Your task to perform on an android device: When is my next meeting? Image 0: 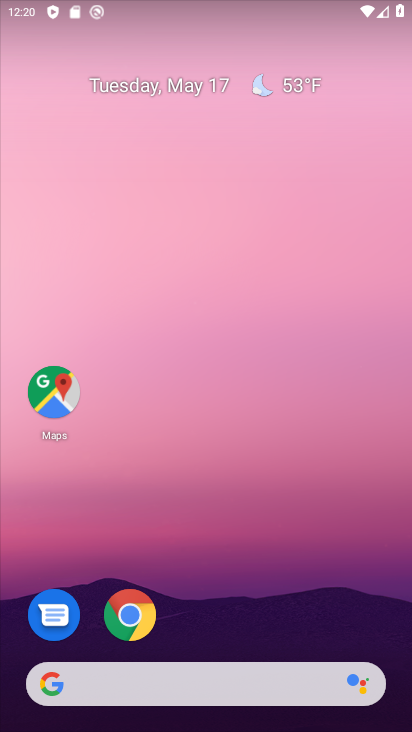
Step 0: drag from (248, 628) to (251, 51)
Your task to perform on an android device: When is my next meeting? Image 1: 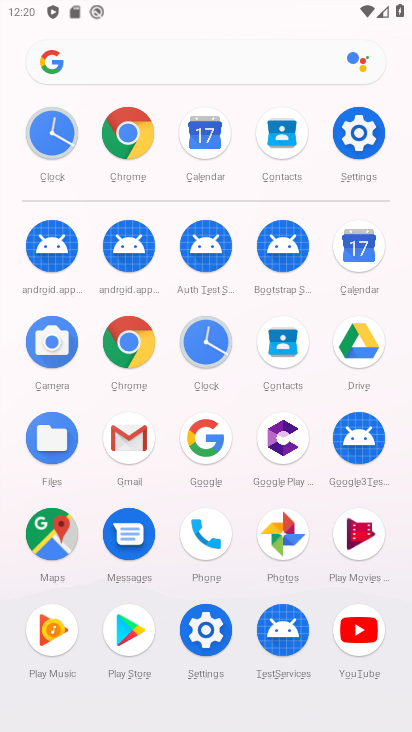
Step 1: click (363, 269)
Your task to perform on an android device: When is my next meeting? Image 2: 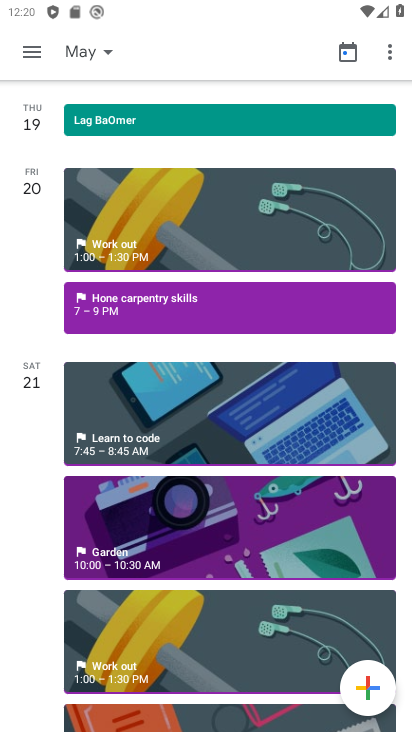
Step 2: click (31, 63)
Your task to perform on an android device: When is my next meeting? Image 3: 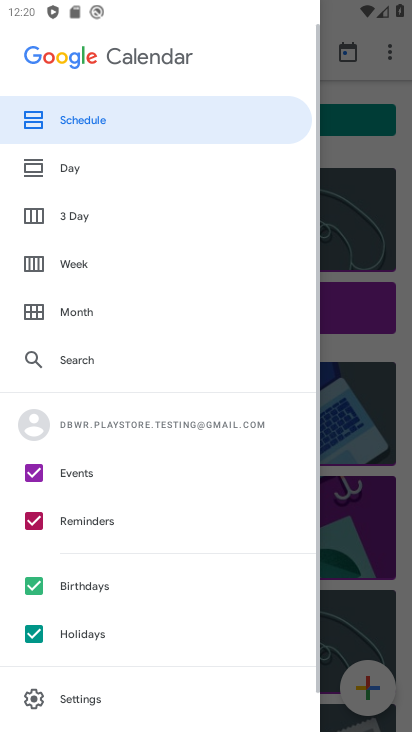
Step 3: click (94, 295)
Your task to perform on an android device: When is my next meeting? Image 4: 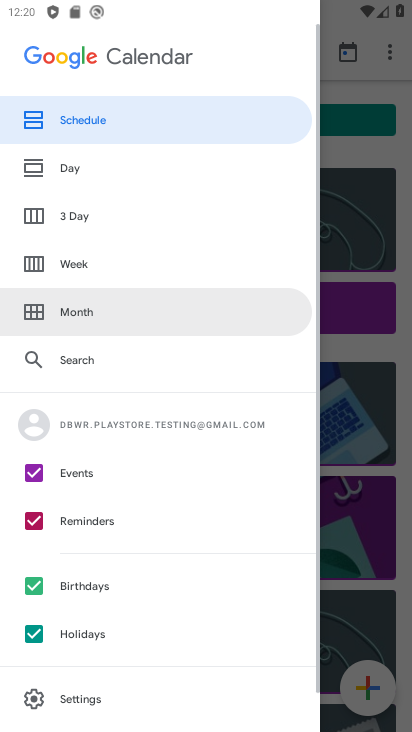
Step 4: task complete